Your task to perform on an android device: make emails show in primary in the gmail app Image 0: 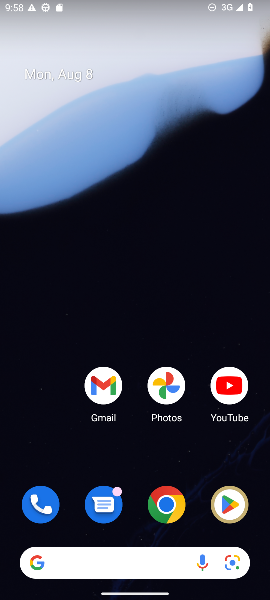
Step 0: drag from (133, 520) to (144, 13)
Your task to perform on an android device: make emails show in primary in the gmail app Image 1: 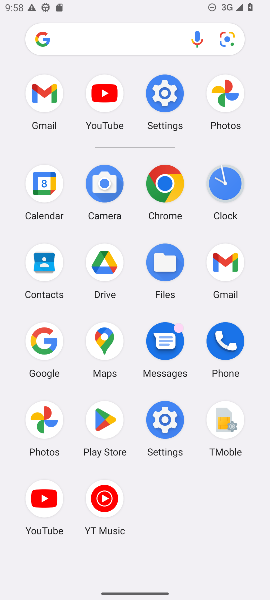
Step 1: click (226, 261)
Your task to perform on an android device: make emails show in primary in the gmail app Image 2: 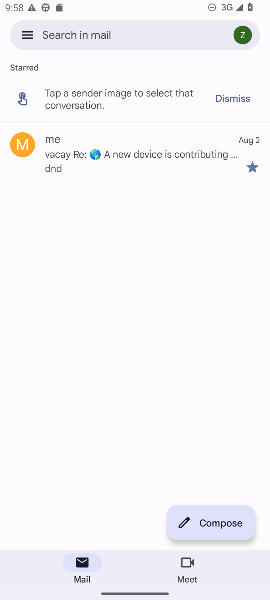
Step 2: click (22, 40)
Your task to perform on an android device: make emails show in primary in the gmail app Image 3: 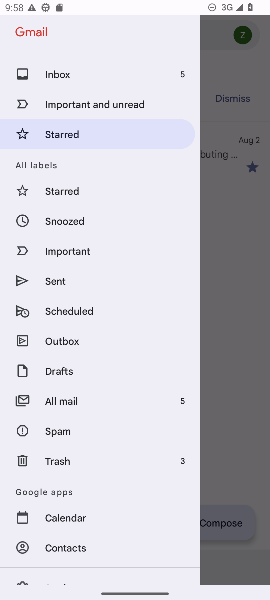
Step 3: drag from (65, 460) to (70, 214)
Your task to perform on an android device: make emails show in primary in the gmail app Image 4: 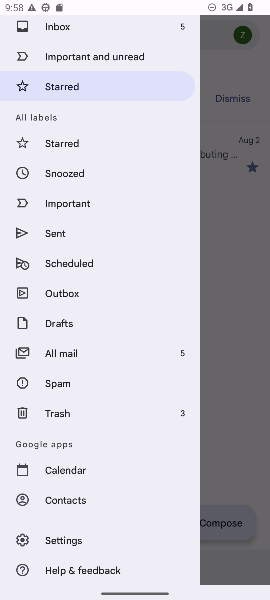
Step 4: click (53, 541)
Your task to perform on an android device: make emails show in primary in the gmail app Image 5: 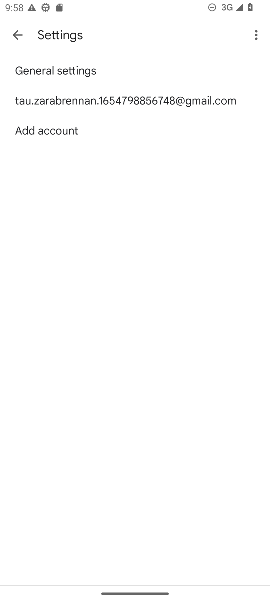
Step 5: click (85, 99)
Your task to perform on an android device: make emails show in primary in the gmail app Image 6: 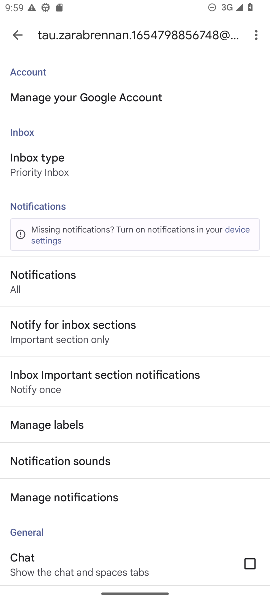
Step 6: click (56, 169)
Your task to perform on an android device: make emails show in primary in the gmail app Image 7: 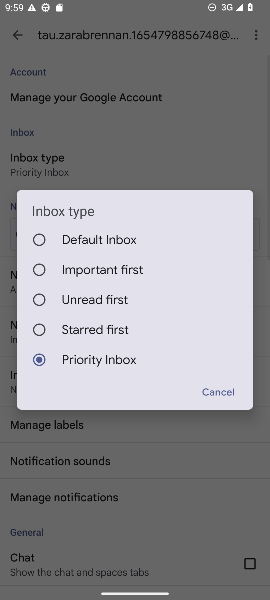
Step 7: click (87, 244)
Your task to perform on an android device: make emails show in primary in the gmail app Image 8: 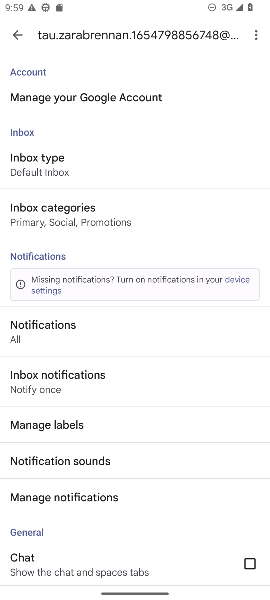
Step 8: click (68, 207)
Your task to perform on an android device: make emails show in primary in the gmail app Image 9: 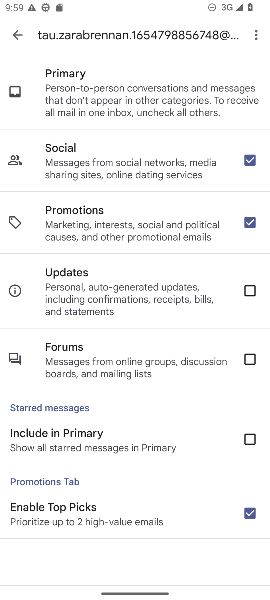
Step 9: click (247, 232)
Your task to perform on an android device: make emails show in primary in the gmail app Image 10: 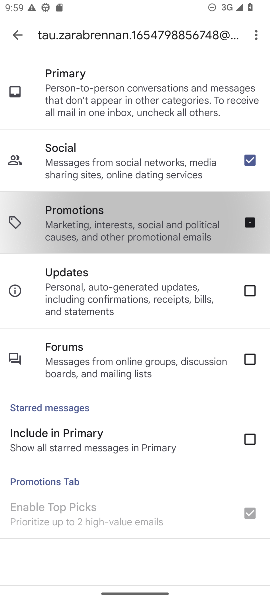
Step 10: click (238, 160)
Your task to perform on an android device: make emails show in primary in the gmail app Image 11: 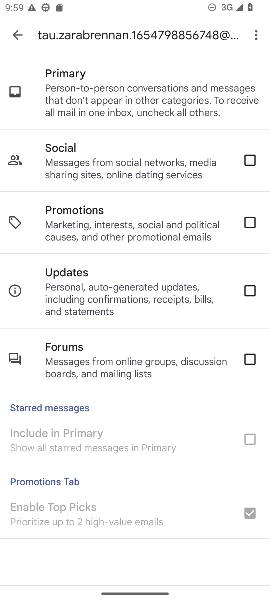
Step 11: task complete